Your task to perform on an android device: Open CNN.com Image 0: 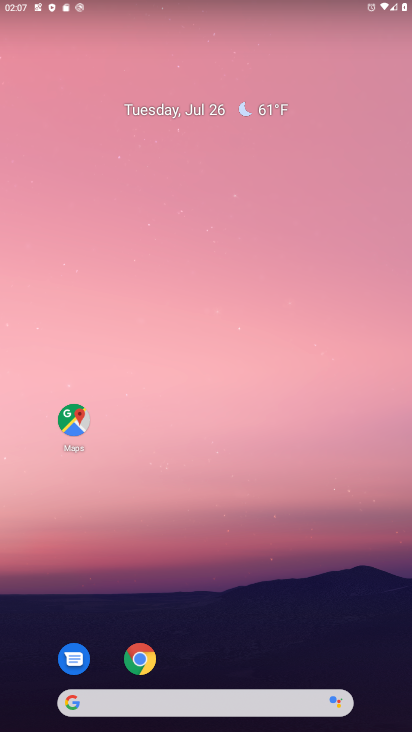
Step 0: drag from (285, 640) to (248, 17)
Your task to perform on an android device: Open CNN.com Image 1: 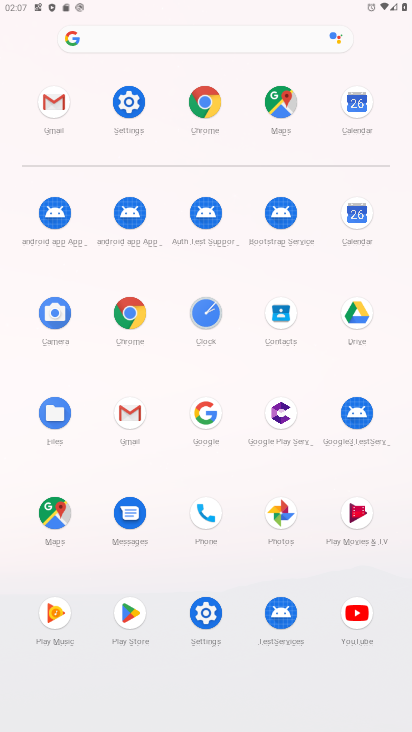
Step 1: click (206, 102)
Your task to perform on an android device: Open CNN.com Image 2: 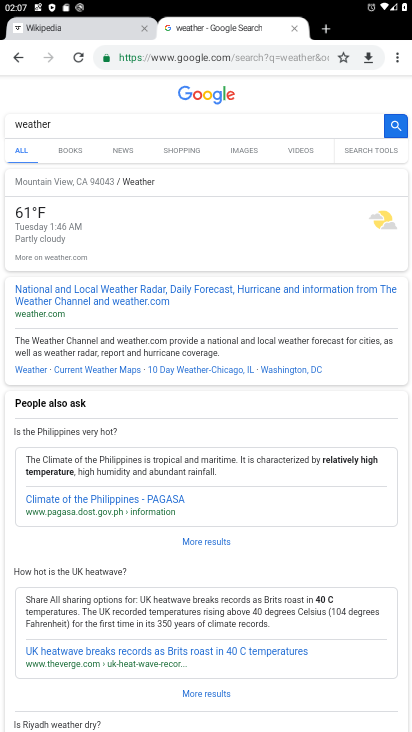
Step 2: click (197, 55)
Your task to perform on an android device: Open CNN.com Image 3: 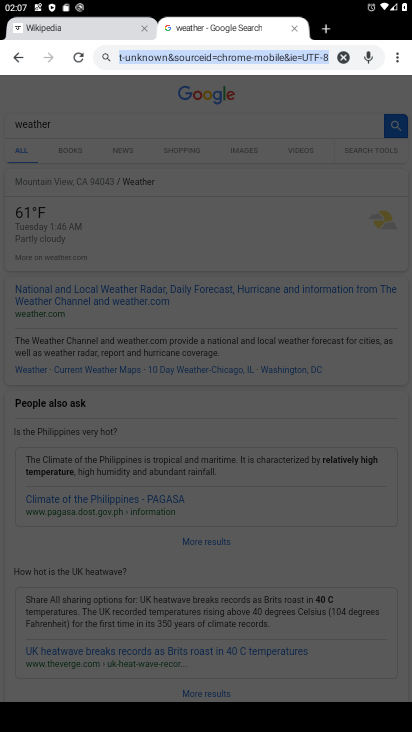
Step 3: type "cnn.com"
Your task to perform on an android device: Open CNN.com Image 4: 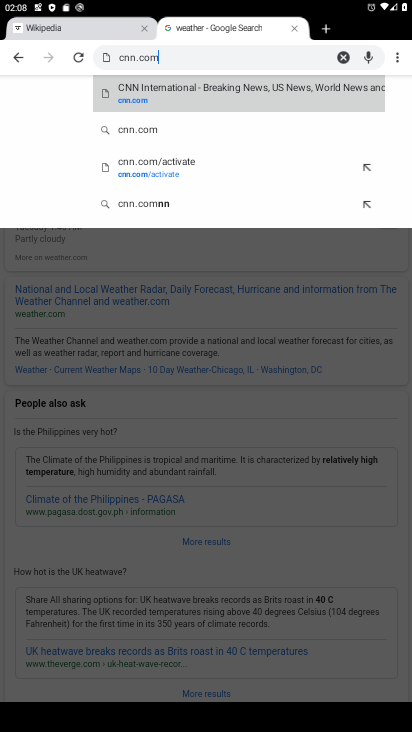
Step 4: click (191, 101)
Your task to perform on an android device: Open CNN.com Image 5: 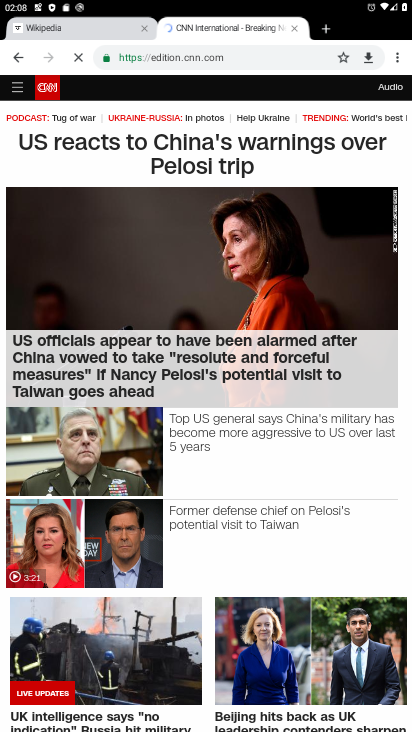
Step 5: task complete